Your task to perform on an android device: toggle pop-ups in chrome Image 0: 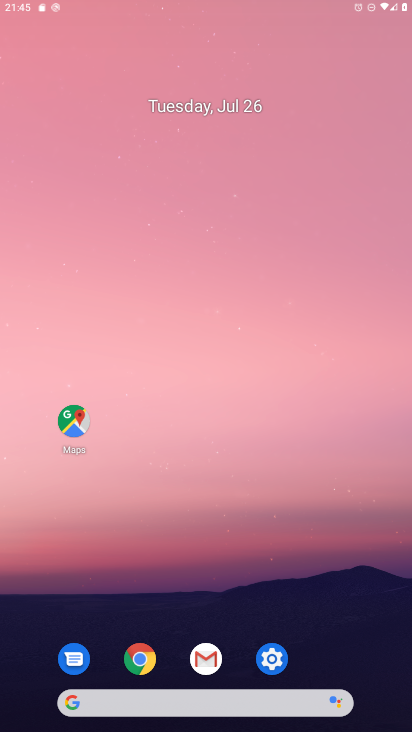
Step 0: press home button
Your task to perform on an android device: toggle pop-ups in chrome Image 1: 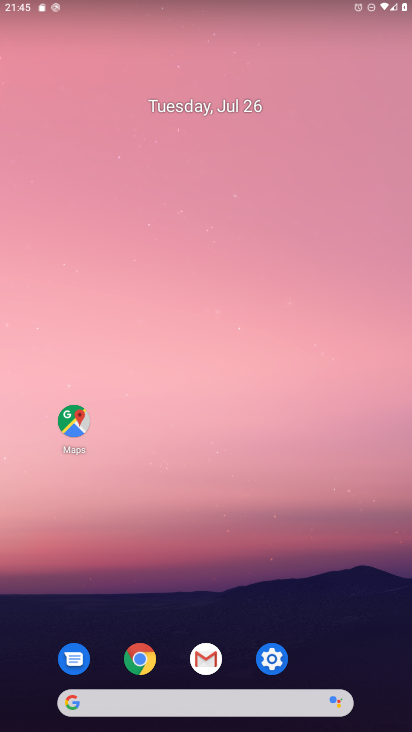
Step 1: click (154, 662)
Your task to perform on an android device: toggle pop-ups in chrome Image 2: 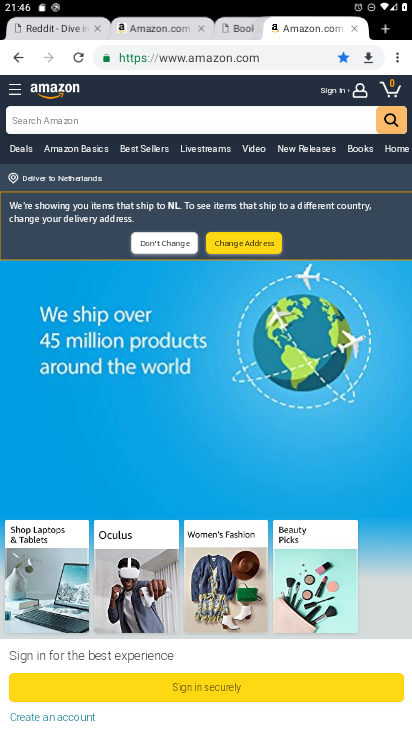
Step 2: click (401, 60)
Your task to perform on an android device: toggle pop-ups in chrome Image 3: 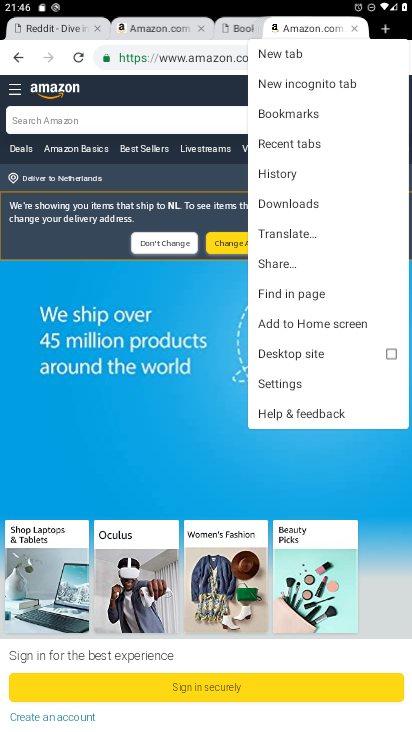
Step 3: click (283, 379)
Your task to perform on an android device: toggle pop-ups in chrome Image 4: 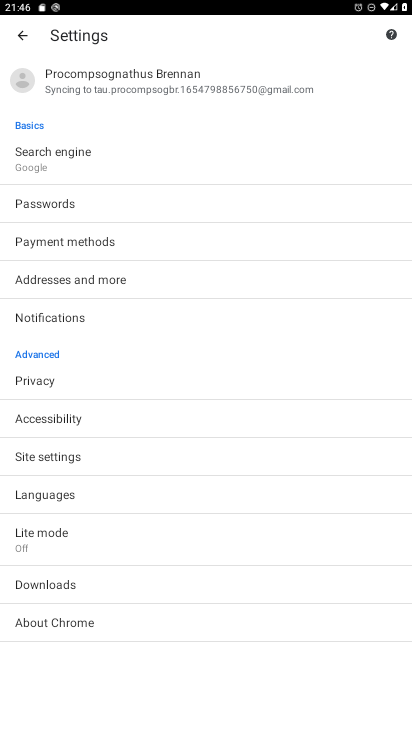
Step 4: click (70, 452)
Your task to perform on an android device: toggle pop-ups in chrome Image 5: 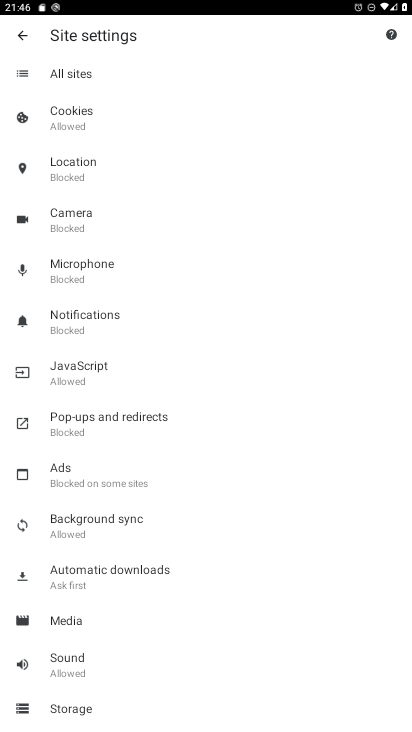
Step 5: click (83, 418)
Your task to perform on an android device: toggle pop-ups in chrome Image 6: 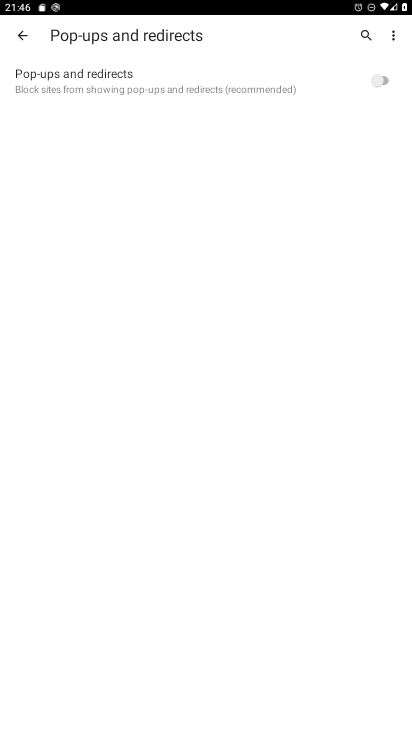
Step 6: click (380, 85)
Your task to perform on an android device: toggle pop-ups in chrome Image 7: 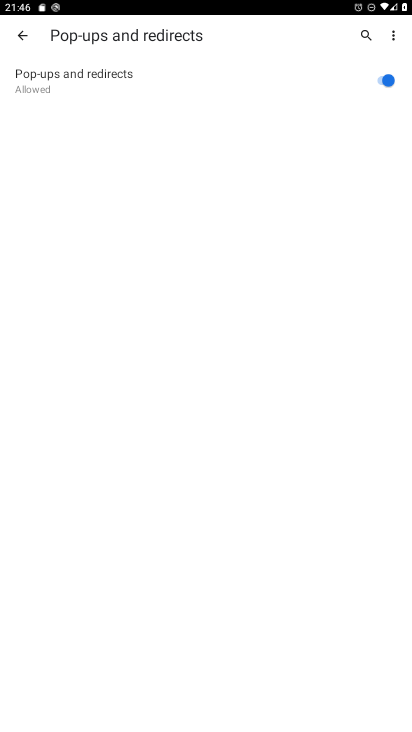
Step 7: click (380, 85)
Your task to perform on an android device: toggle pop-ups in chrome Image 8: 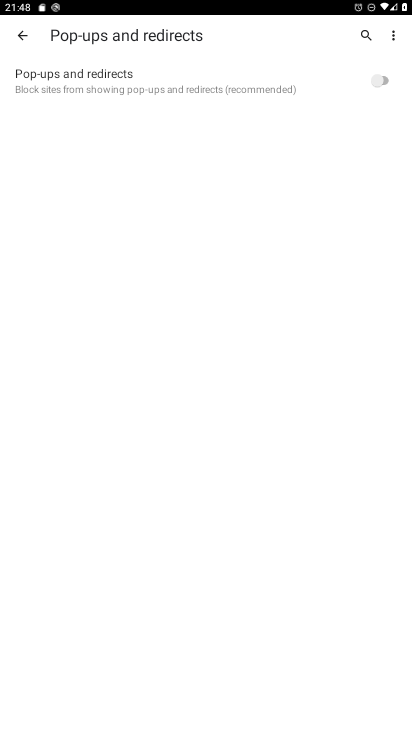
Step 8: task complete